Your task to perform on an android device: choose inbox layout in the gmail app Image 0: 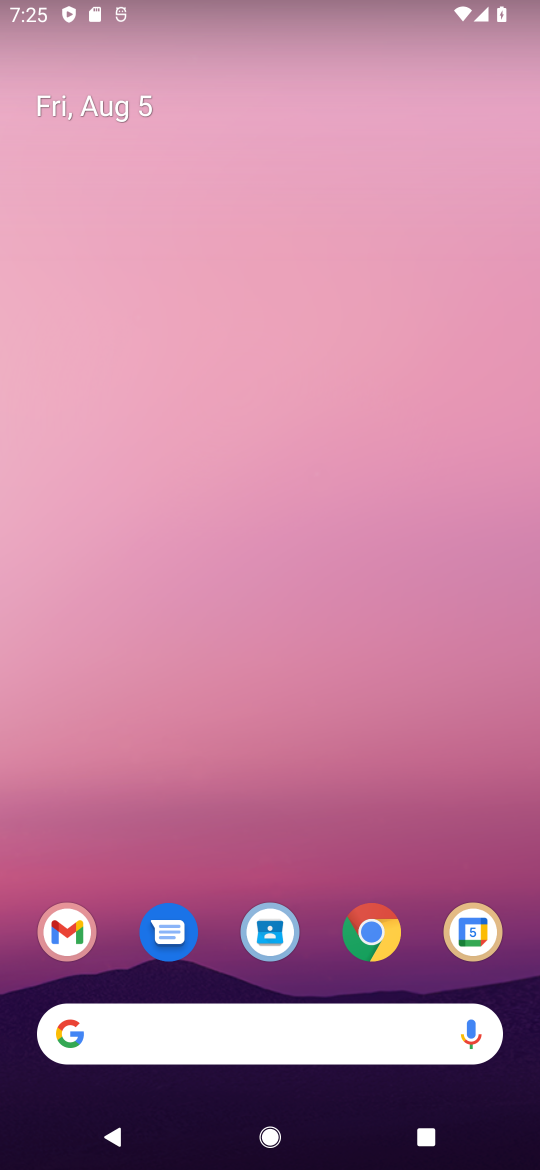
Step 0: drag from (355, 823) to (373, 35)
Your task to perform on an android device: choose inbox layout in the gmail app Image 1: 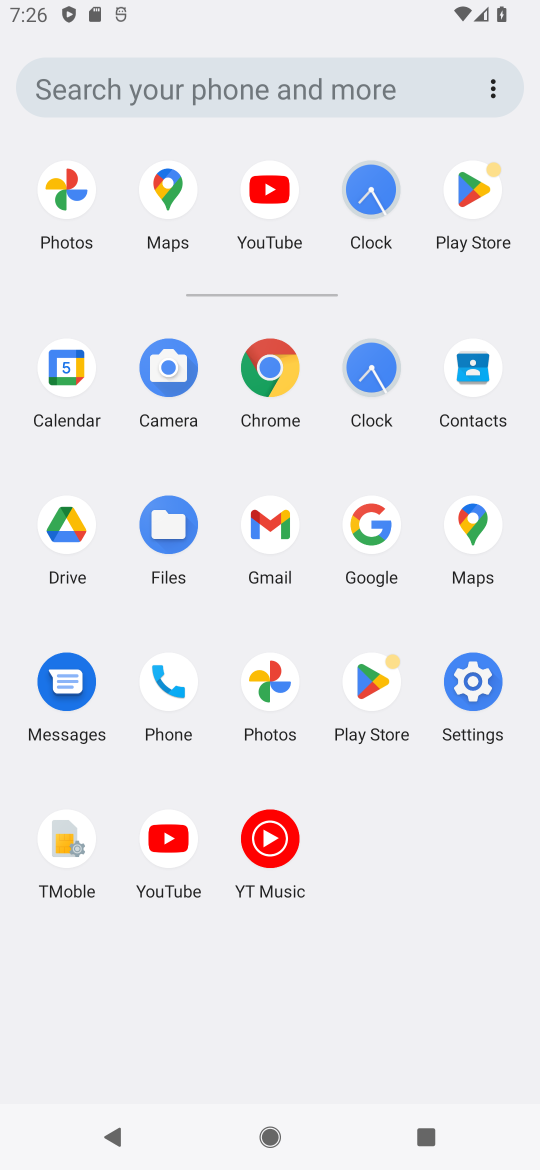
Step 1: click (274, 524)
Your task to perform on an android device: choose inbox layout in the gmail app Image 2: 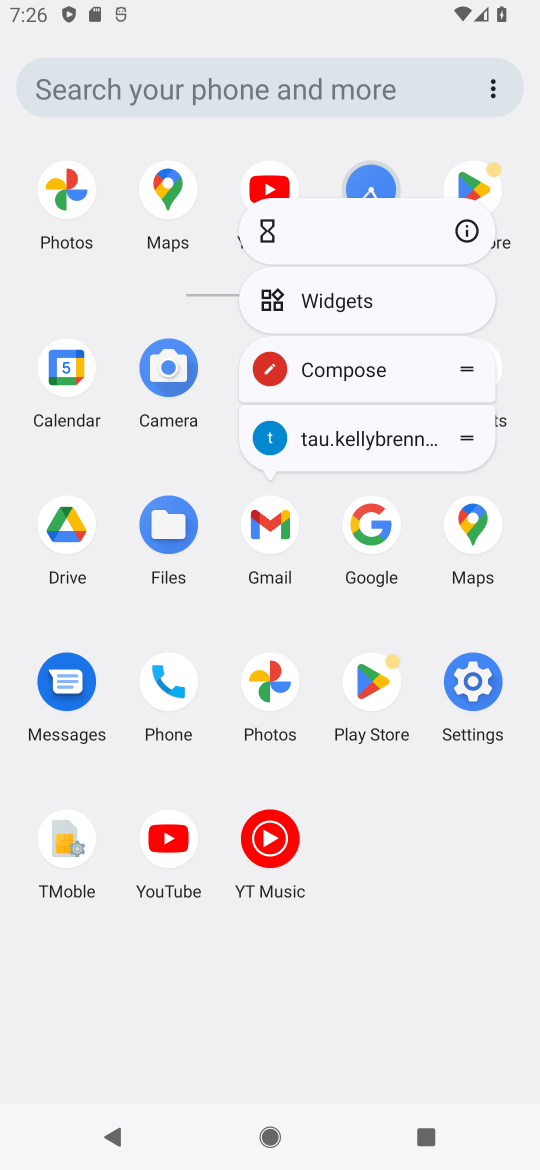
Step 2: click (278, 533)
Your task to perform on an android device: choose inbox layout in the gmail app Image 3: 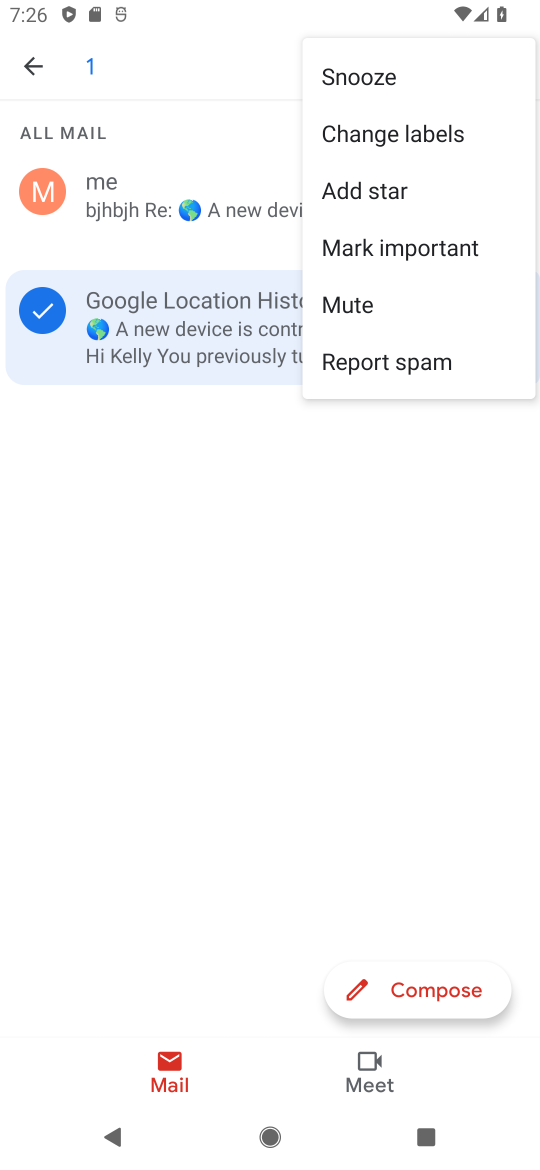
Step 3: click (164, 534)
Your task to perform on an android device: choose inbox layout in the gmail app Image 4: 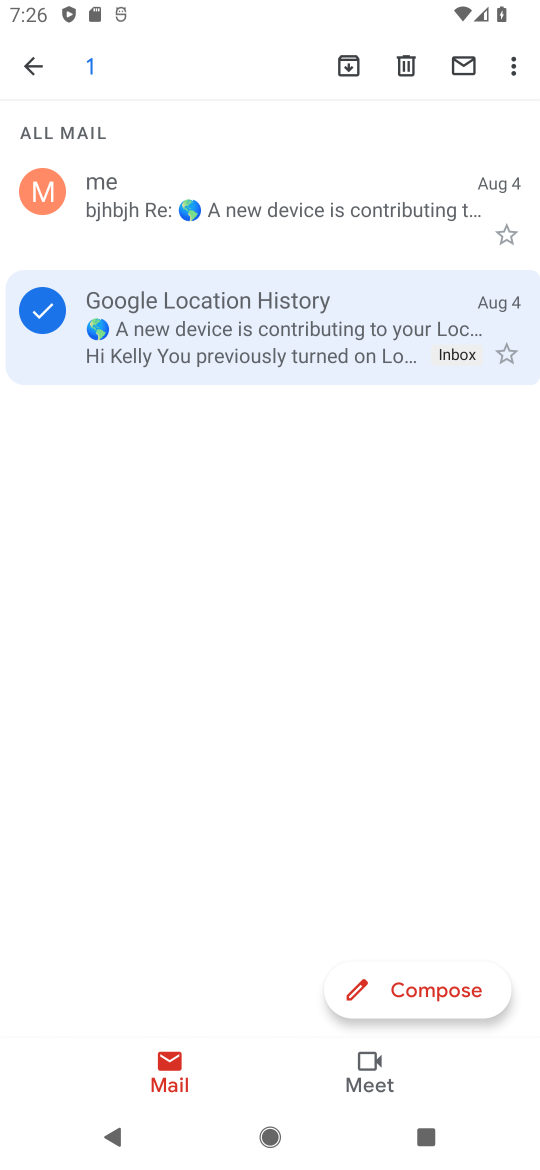
Step 4: click (43, 68)
Your task to perform on an android device: choose inbox layout in the gmail app Image 5: 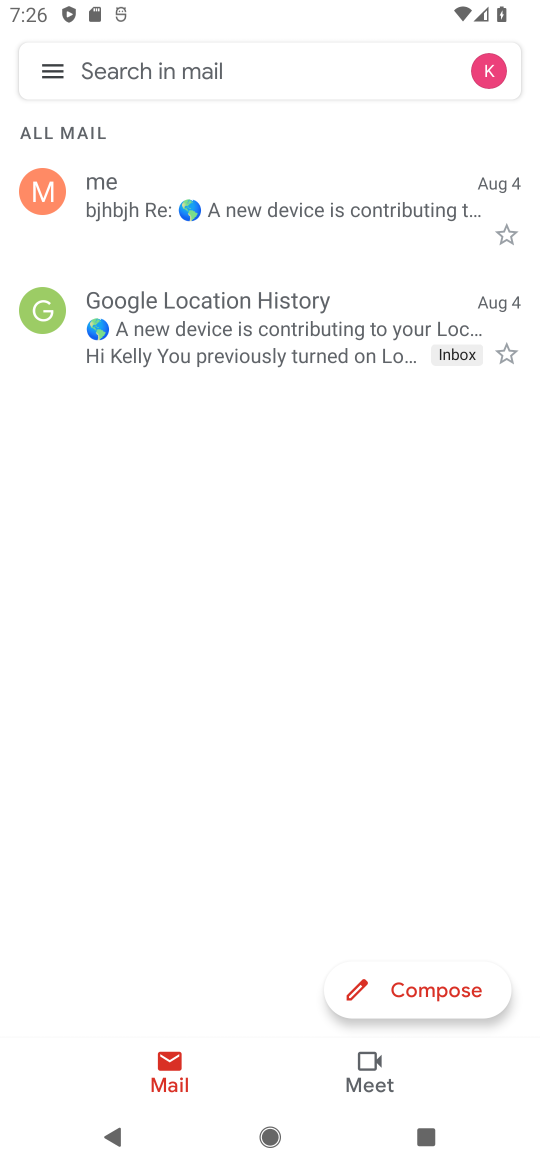
Step 5: click (41, 69)
Your task to perform on an android device: choose inbox layout in the gmail app Image 6: 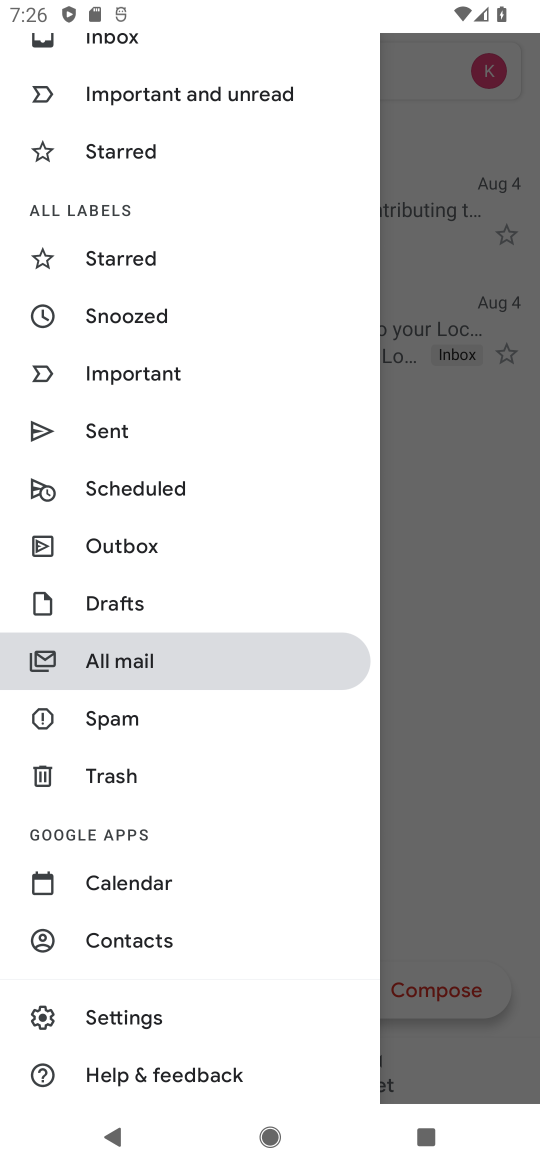
Step 6: click (128, 1022)
Your task to perform on an android device: choose inbox layout in the gmail app Image 7: 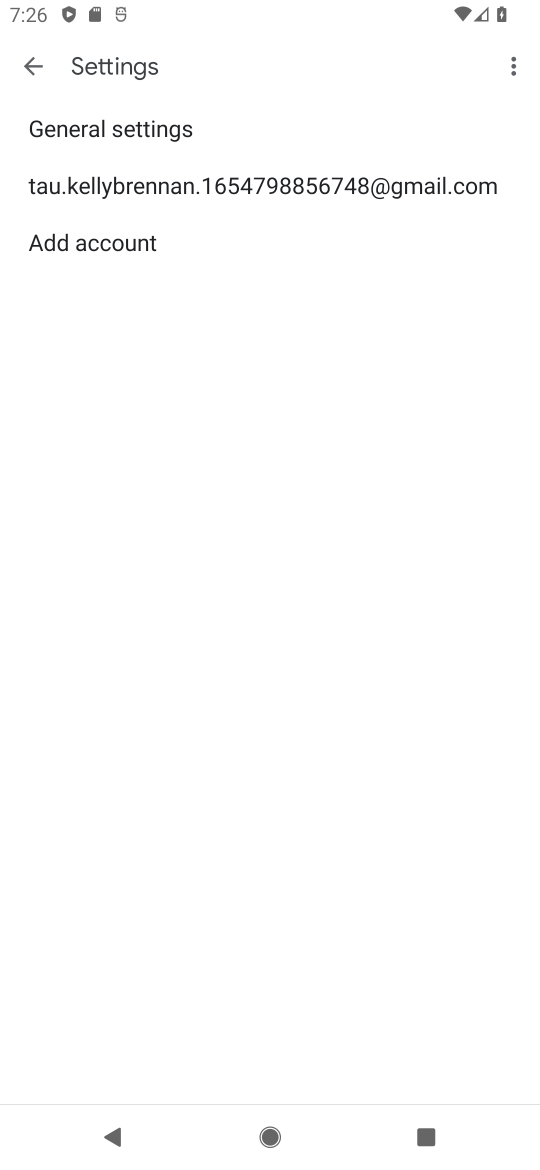
Step 7: click (408, 187)
Your task to perform on an android device: choose inbox layout in the gmail app Image 8: 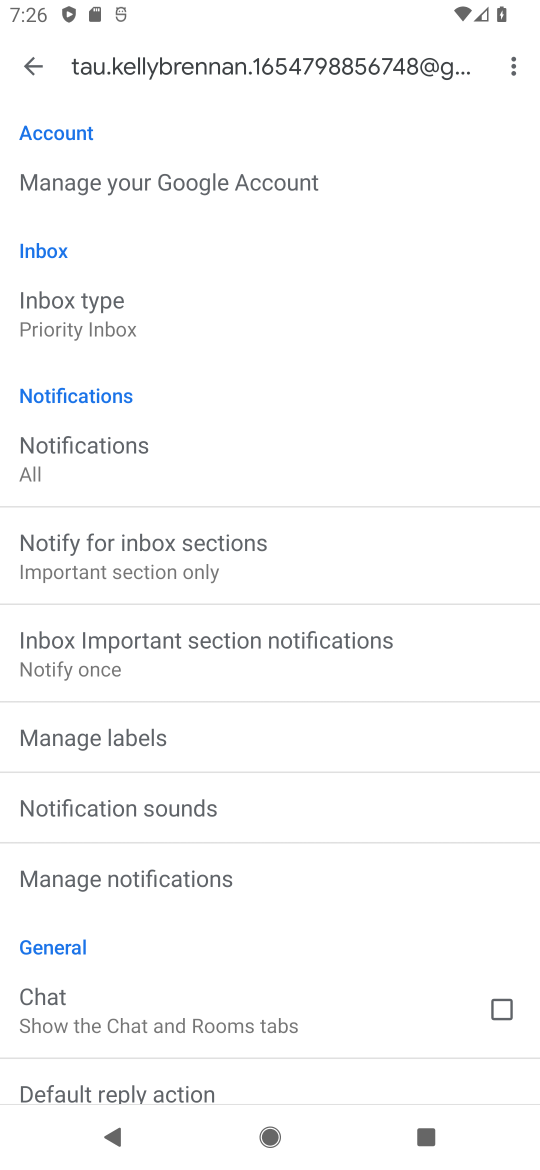
Step 8: click (112, 287)
Your task to perform on an android device: choose inbox layout in the gmail app Image 9: 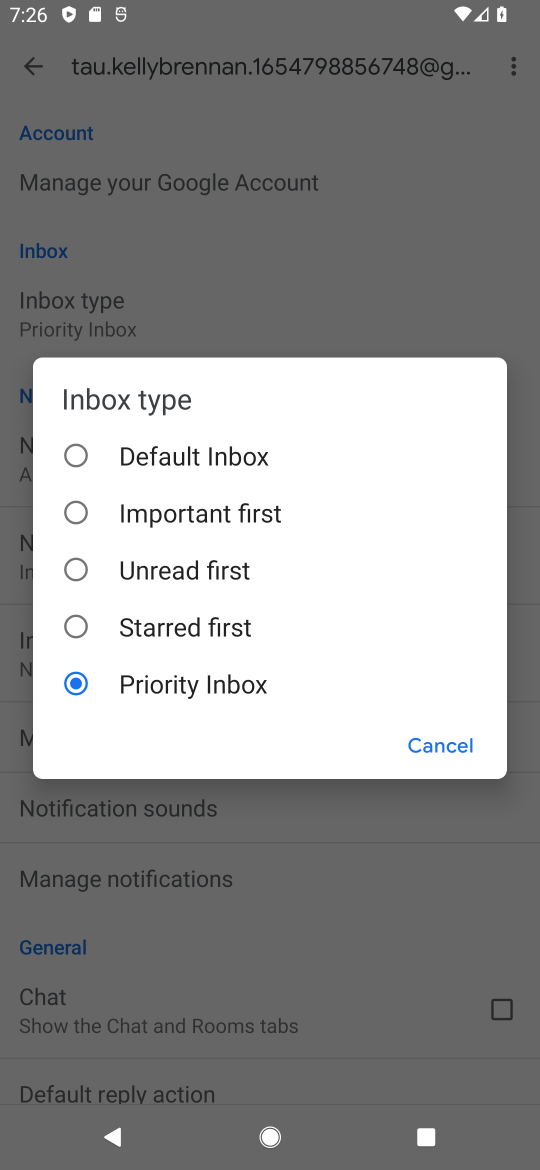
Step 9: task complete